Your task to perform on an android device: set an alarm Image 0: 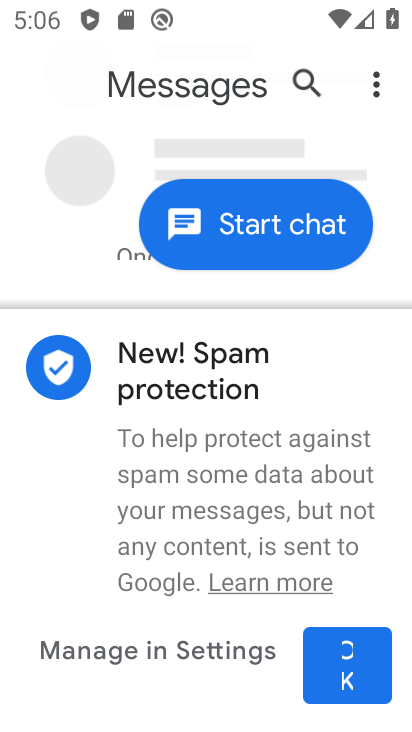
Step 0: press back button
Your task to perform on an android device: set an alarm Image 1: 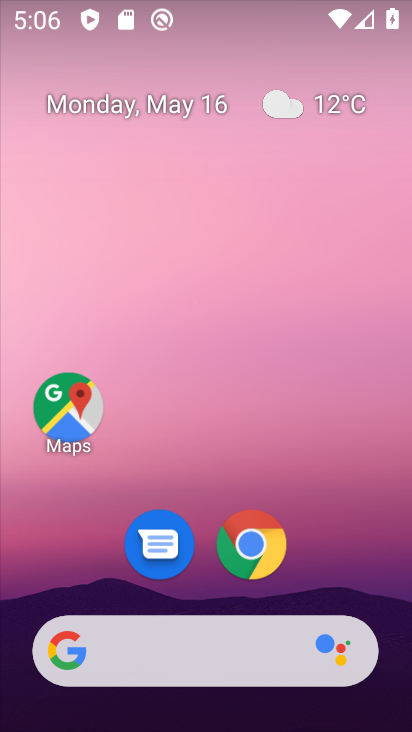
Step 1: drag from (337, 560) to (303, 138)
Your task to perform on an android device: set an alarm Image 2: 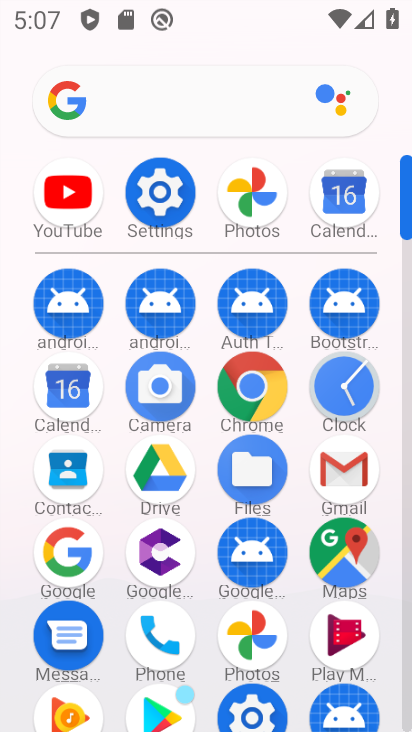
Step 2: click (344, 384)
Your task to perform on an android device: set an alarm Image 3: 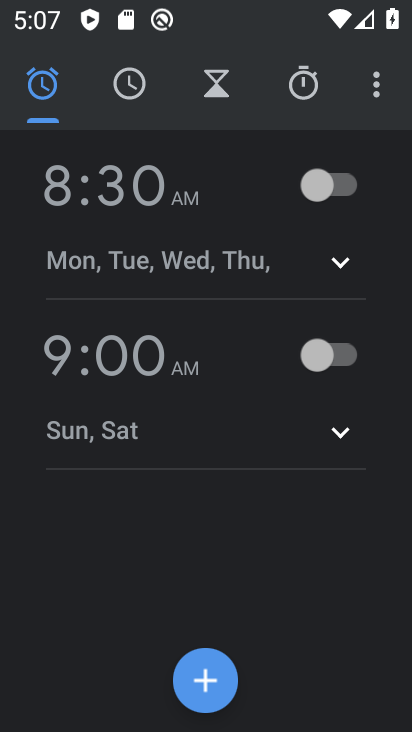
Step 3: click (204, 674)
Your task to perform on an android device: set an alarm Image 4: 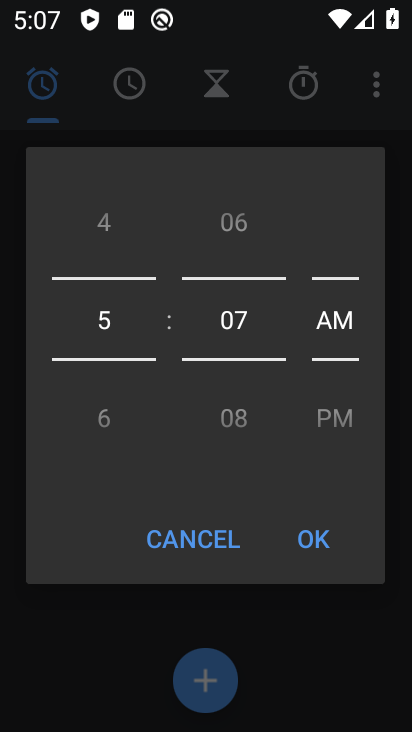
Step 4: drag from (122, 221) to (121, 466)
Your task to perform on an android device: set an alarm Image 5: 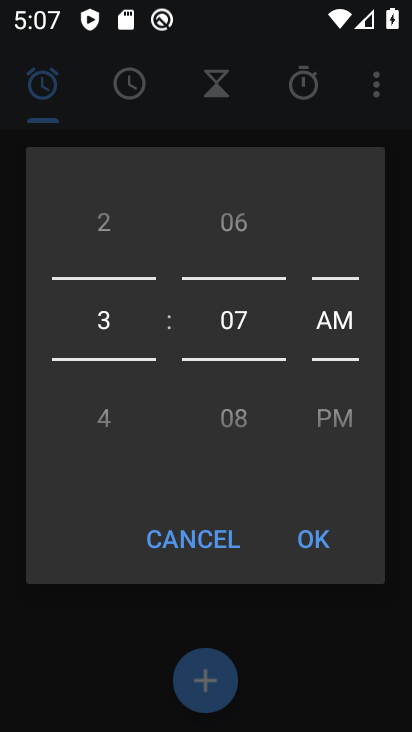
Step 5: drag from (264, 229) to (298, 474)
Your task to perform on an android device: set an alarm Image 6: 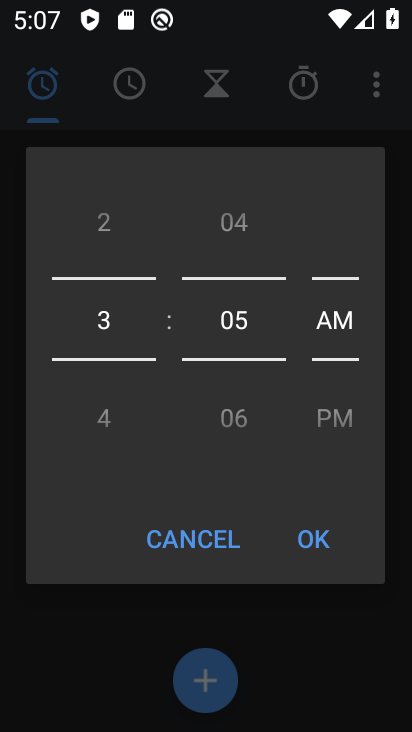
Step 6: drag from (342, 323) to (353, 189)
Your task to perform on an android device: set an alarm Image 7: 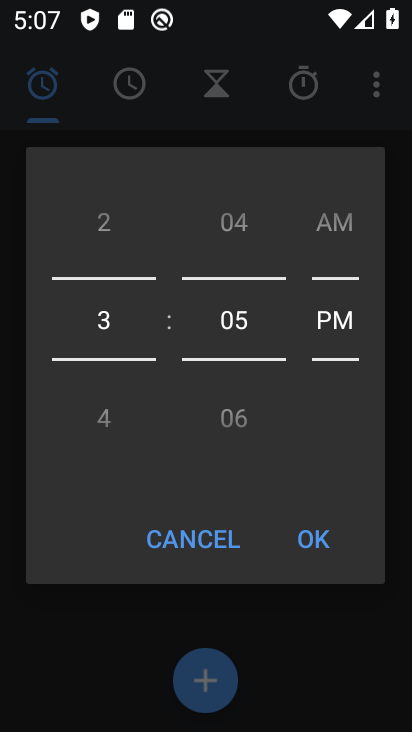
Step 7: click (307, 543)
Your task to perform on an android device: set an alarm Image 8: 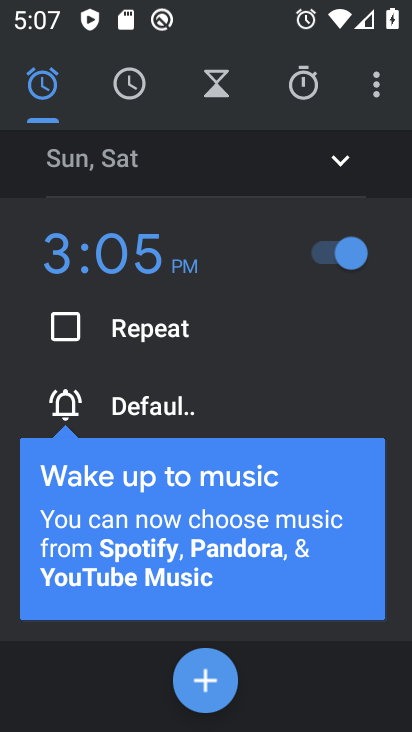
Step 8: click (348, 477)
Your task to perform on an android device: set an alarm Image 9: 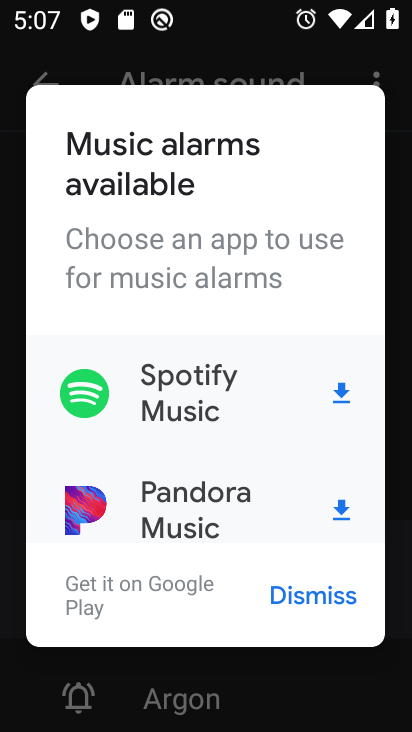
Step 9: click (298, 602)
Your task to perform on an android device: set an alarm Image 10: 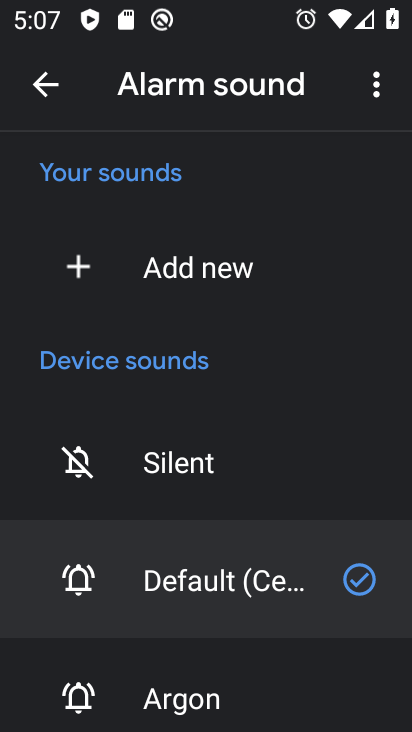
Step 10: press back button
Your task to perform on an android device: set an alarm Image 11: 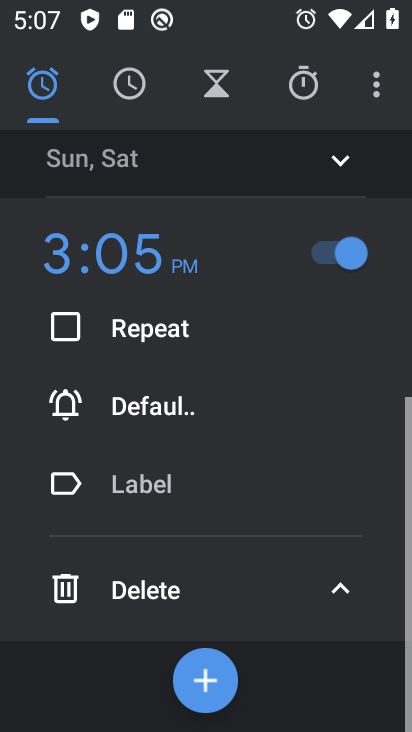
Step 11: click (334, 578)
Your task to perform on an android device: set an alarm Image 12: 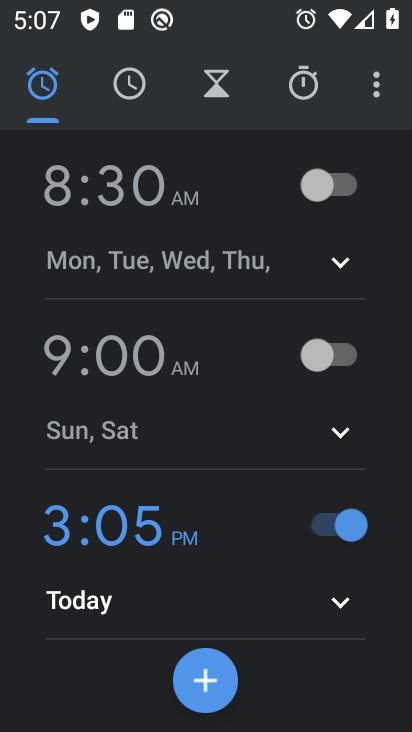
Step 12: task complete